Your task to perform on an android device: turn notification dots off Image 0: 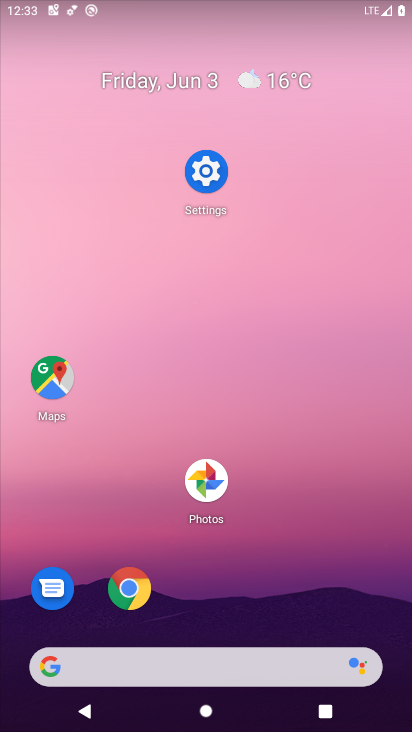
Step 0: drag from (315, 12) to (235, 51)
Your task to perform on an android device: turn notification dots off Image 1: 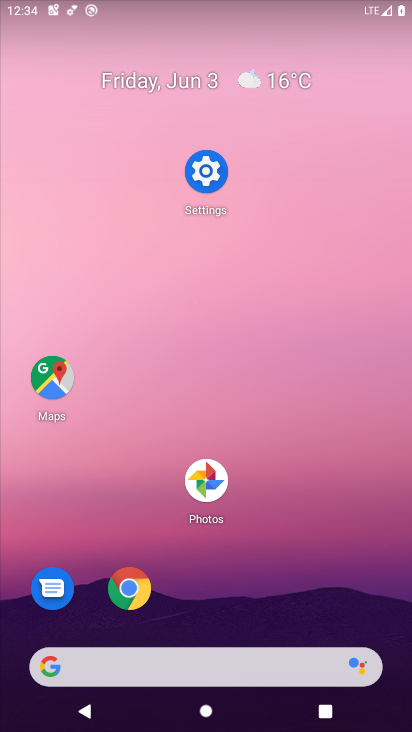
Step 1: drag from (210, 561) to (137, 16)
Your task to perform on an android device: turn notification dots off Image 2: 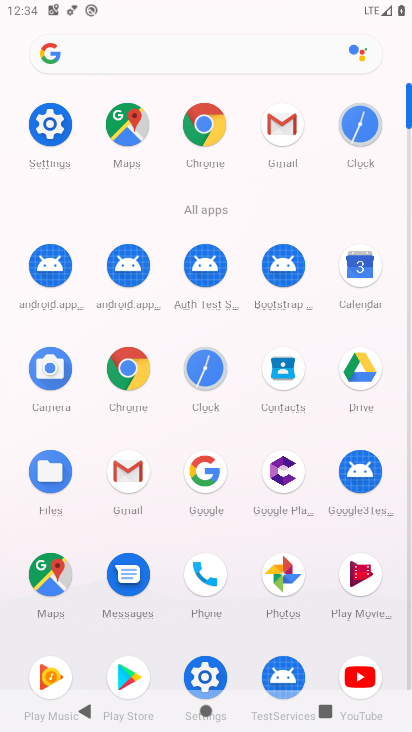
Step 2: click (40, 118)
Your task to perform on an android device: turn notification dots off Image 3: 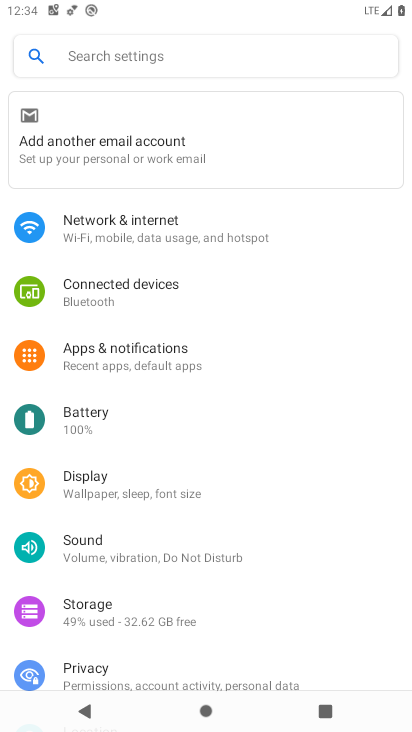
Step 3: drag from (206, 635) to (207, 107)
Your task to perform on an android device: turn notification dots off Image 4: 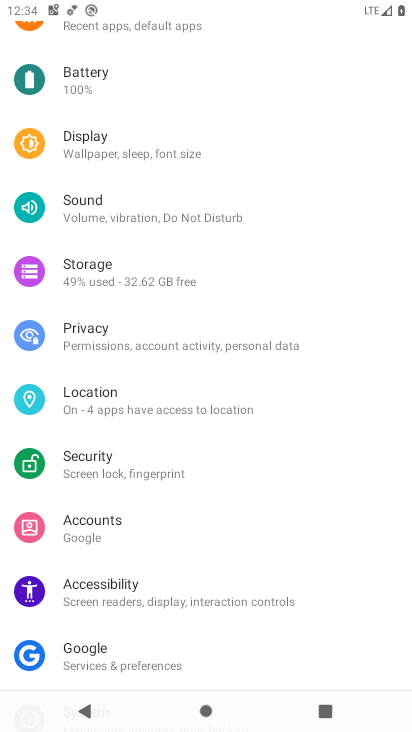
Step 4: drag from (182, 591) to (165, 57)
Your task to perform on an android device: turn notification dots off Image 5: 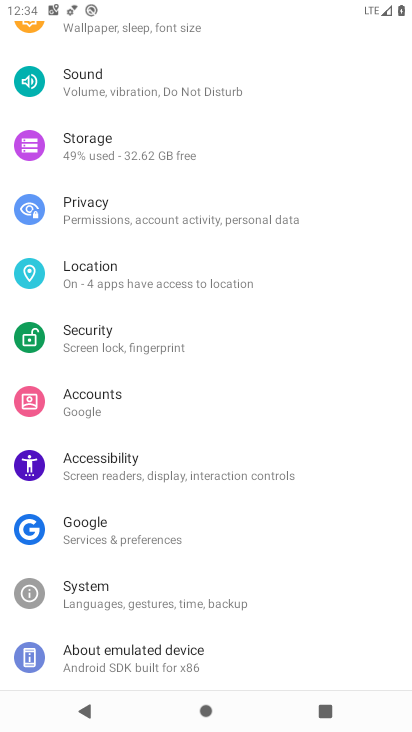
Step 5: drag from (148, 197) to (193, 725)
Your task to perform on an android device: turn notification dots off Image 6: 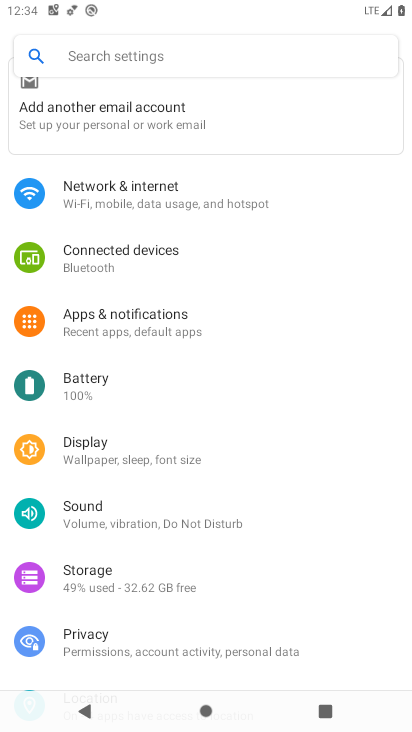
Step 6: click (148, 314)
Your task to perform on an android device: turn notification dots off Image 7: 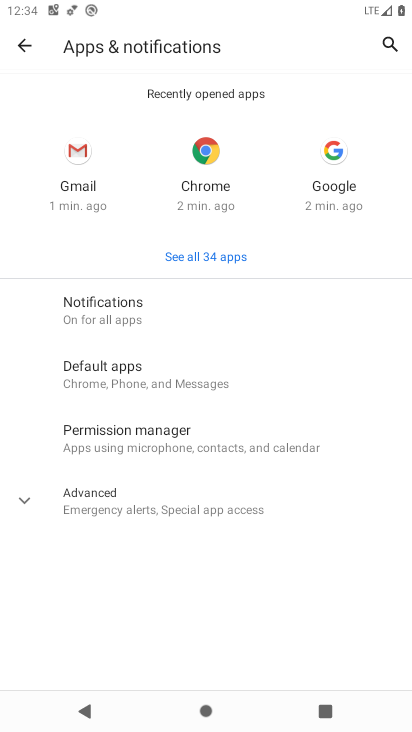
Step 7: click (170, 308)
Your task to perform on an android device: turn notification dots off Image 8: 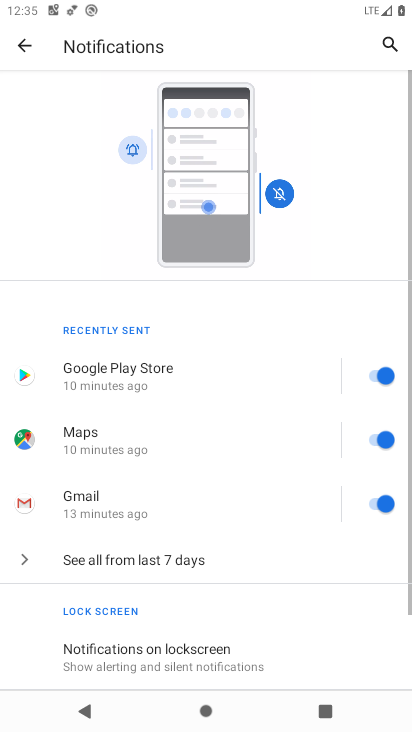
Step 8: drag from (179, 542) to (206, 215)
Your task to perform on an android device: turn notification dots off Image 9: 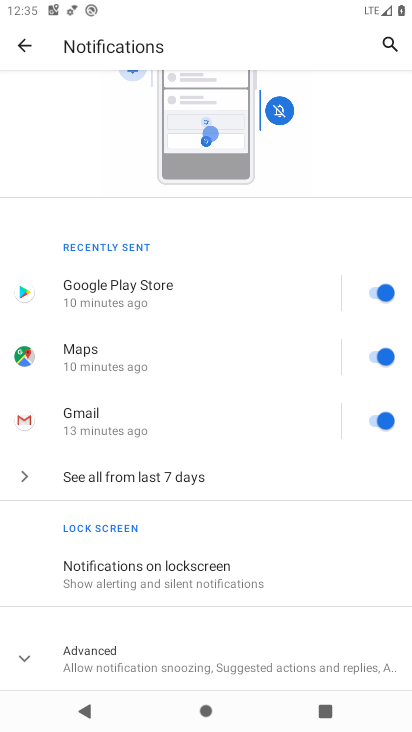
Step 9: click (104, 669)
Your task to perform on an android device: turn notification dots off Image 10: 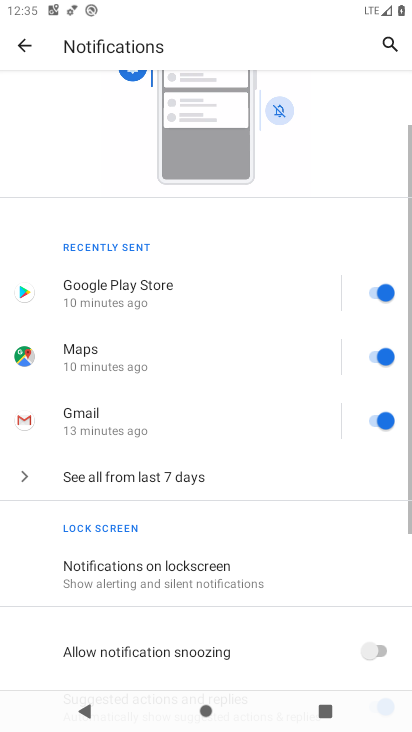
Step 10: drag from (245, 588) to (395, 9)
Your task to perform on an android device: turn notification dots off Image 11: 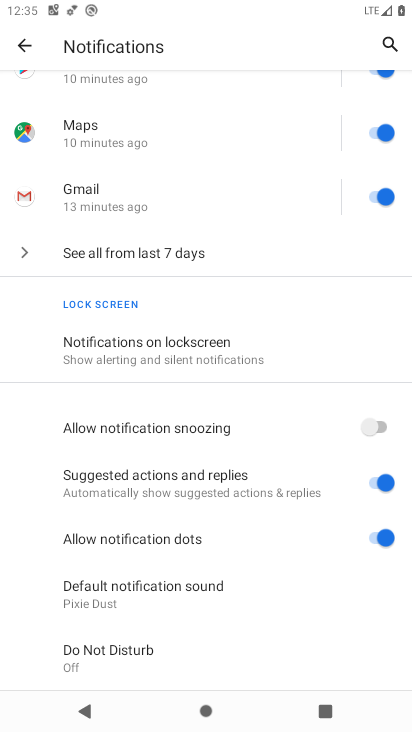
Step 11: click (373, 534)
Your task to perform on an android device: turn notification dots off Image 12: 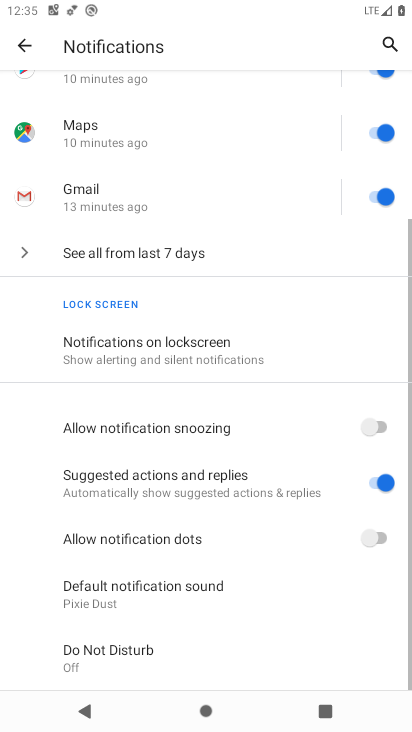
Step 12: task complete